Your task to perform on an android device: Open sound settings Image 0: 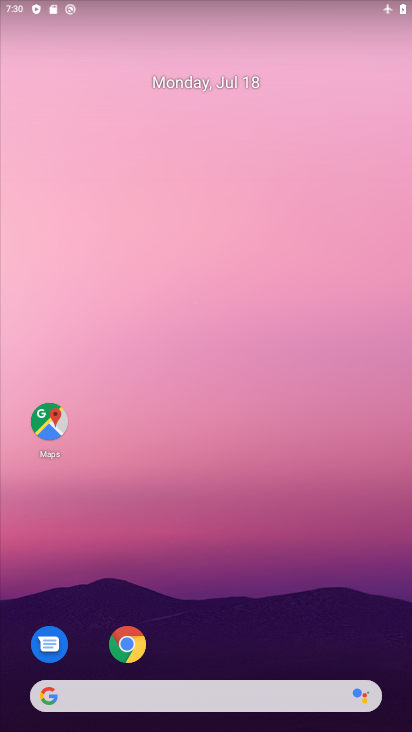
Step 0: drag from (350, 631) to (401, 191)
Your task to perform on an android device: Open sound settings Image 1: 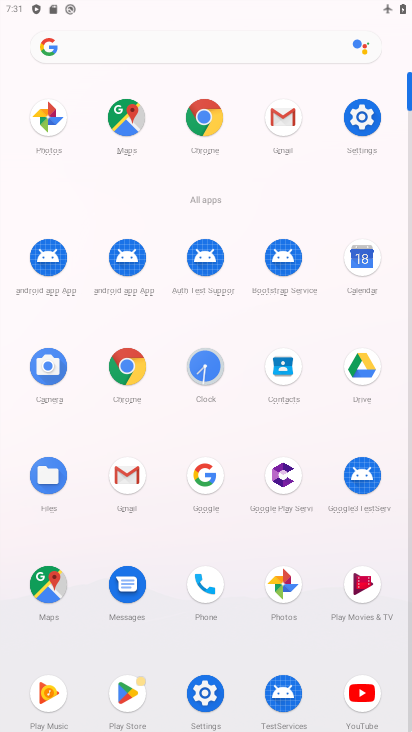
Step 1: click (360, 126)
Your task to perform on an android device: Open sound settings Image 2: 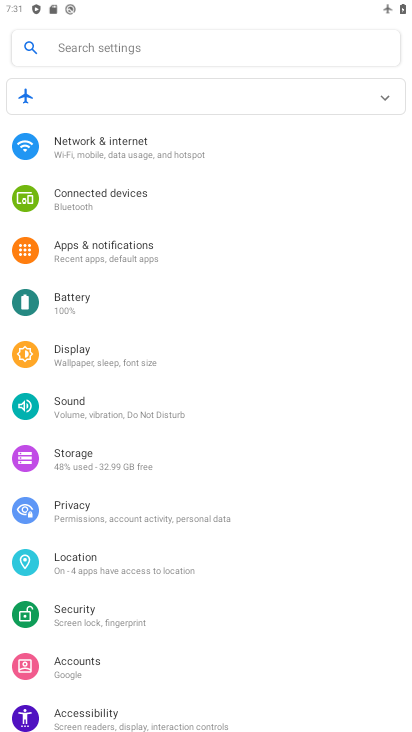
Step 2: drag from (306, 386) to (318, 323)
Your task to perform on an android device: Open sound settings Image 3: 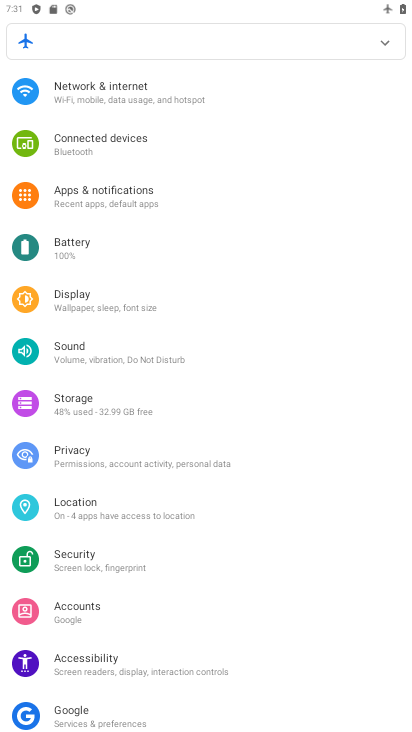
Step 3: drag from (323, 397) to (333, 334)
Your task to perform on an android device: Open sound settings Image 4: 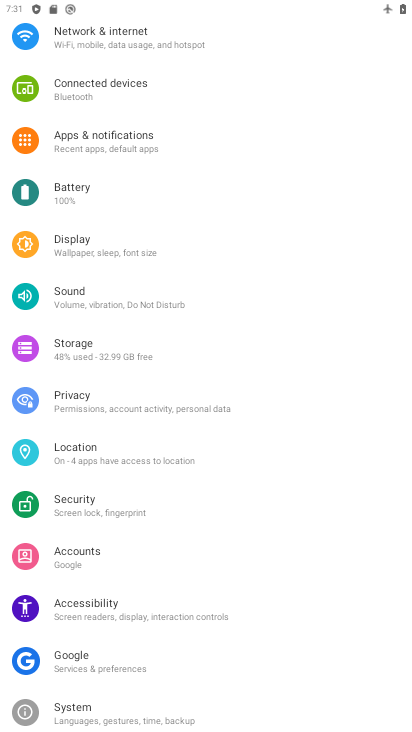
Step 4: drag from (338, 412) to (341, 334)
Your task to perform on an android device: Open sound settings Image 5: 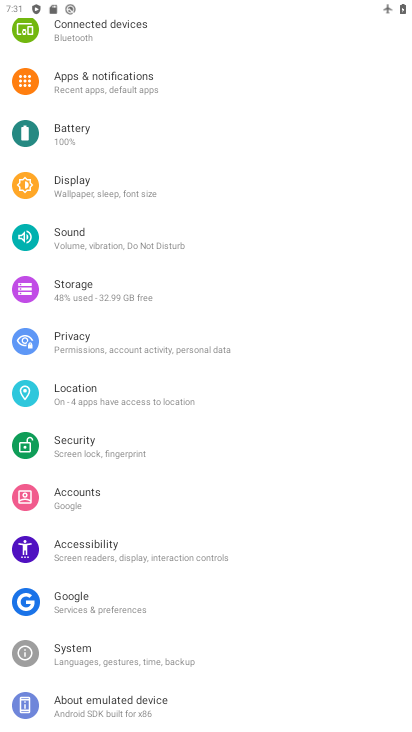
Step 5: drag from (326, 317) to (332, 389)
Your task to perform on an android device: Open sound settings Image 6: 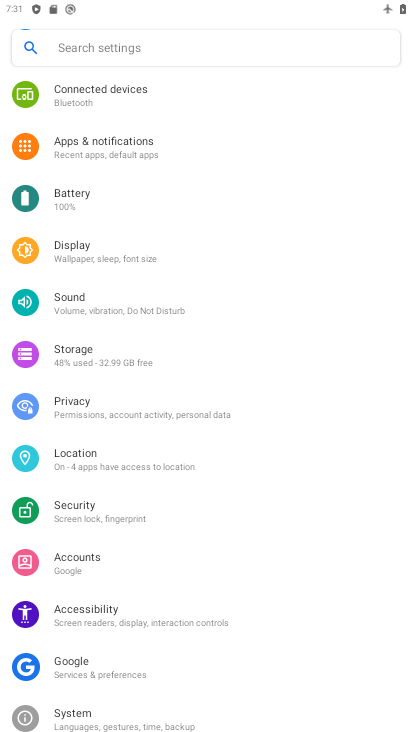
Step 6: drag from (323, 317) to (327, 383)
Your task to perform on an android device: Open sound settings Image 7: 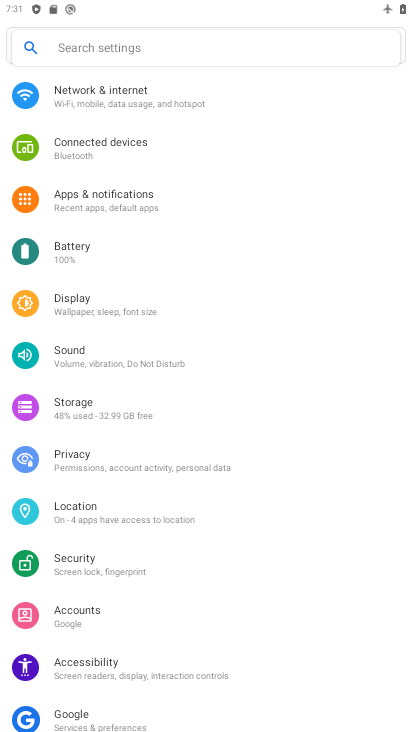
Step 7: drag from (321, 280) to (321, 359)
Your task to perform on an android device: Open sound settings Image 8: 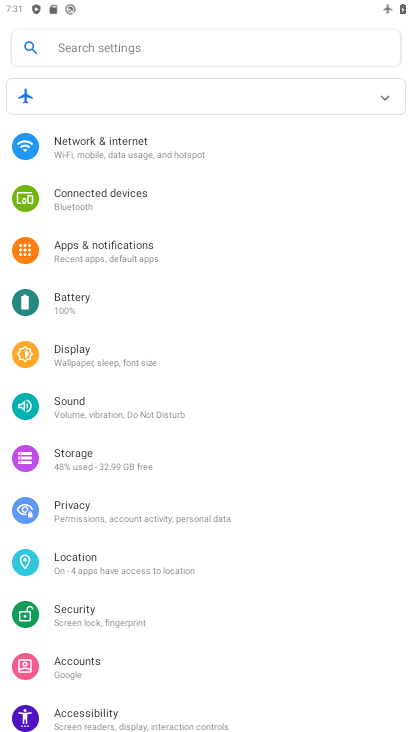
Step 8: drag from (325, 277) to (324, 350)
Your task to perform on an android device: Open sound settings Image 9: 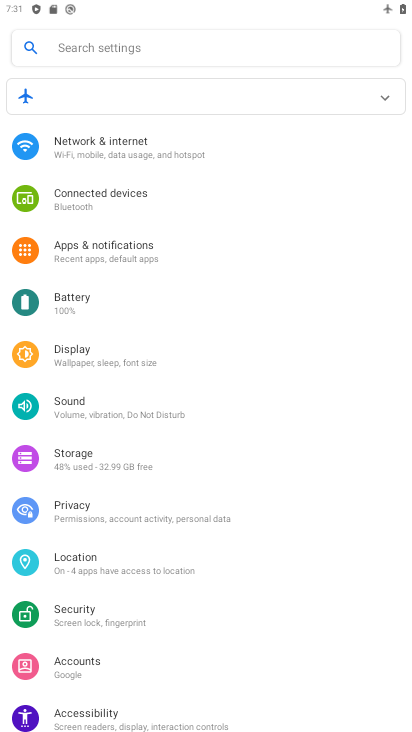
Step 9: click (267, 405)
Your task to perform on an android device: Open sound settings Image 10: 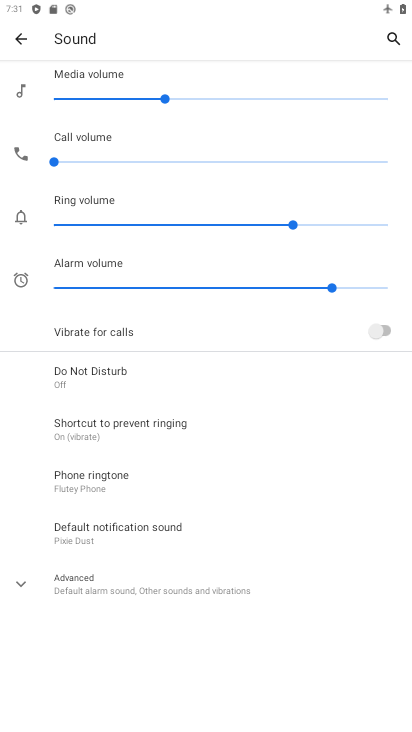
Step 10: task complete